Your task to perform on an android device: turn on location history Image 0: 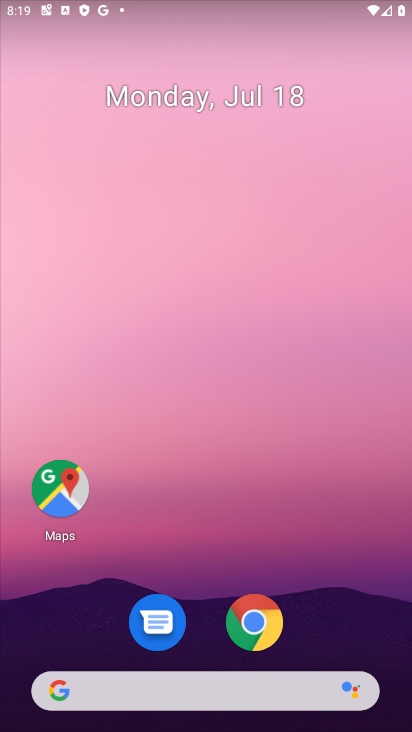
Step 0: drag from (205, 655) to (208, 196)
Your task to perform on an android device: turn on location history Image 1: 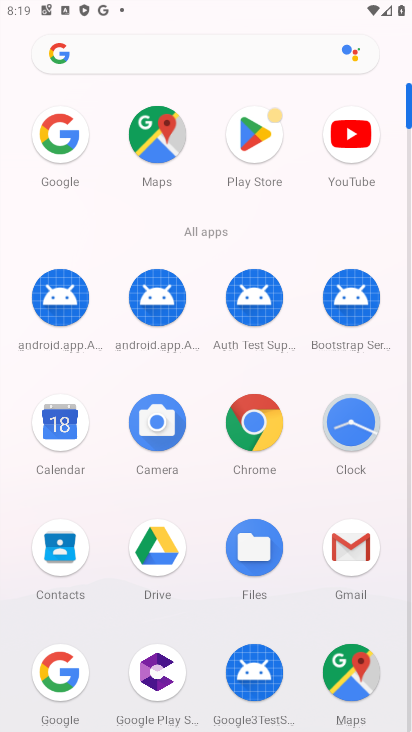
Step 1: drag from (279, 534) to (293, 274)
Your task to perform on an android device: turn on location history Image 2: 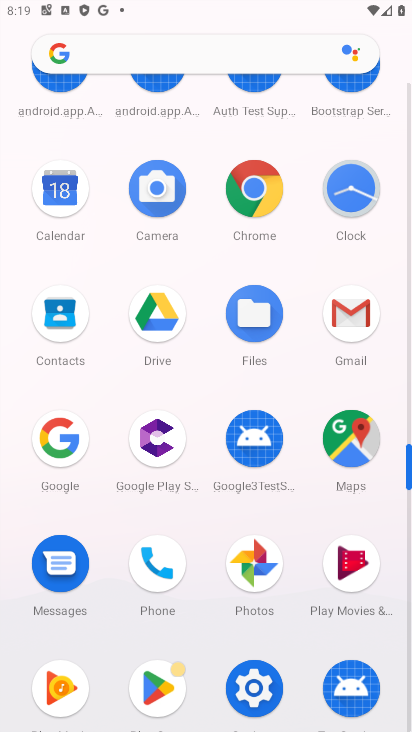
Step 2: click (257, 703)
Your task to perform on an android device: turn on location history Image 3: 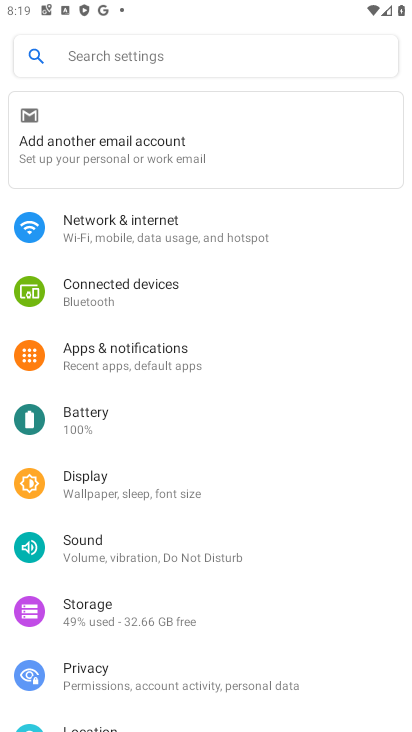
Step 3: drag from (150, 606) to (155, 296)
Your task to perform on an android device: turn on location history Image 4: 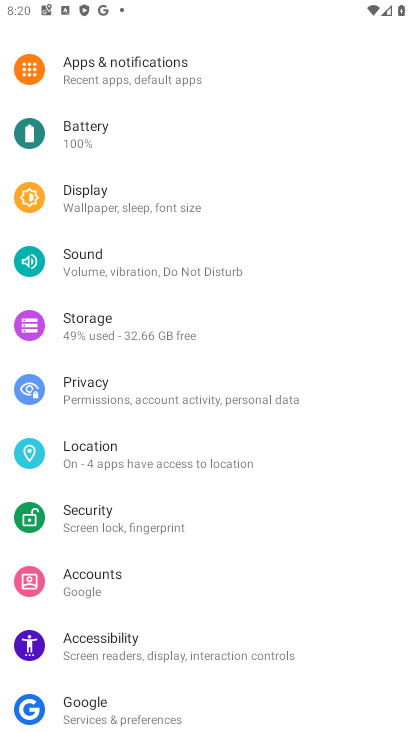
Step 4: click (201, 461)
Your task to perform on an android device: turn on location history Image 5: 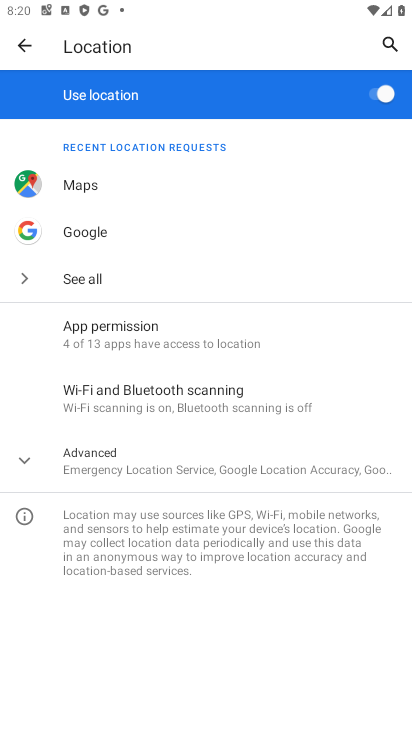
Step 5: click (97, 462)
Your task to perform on an android device: turn on location history Image 6: 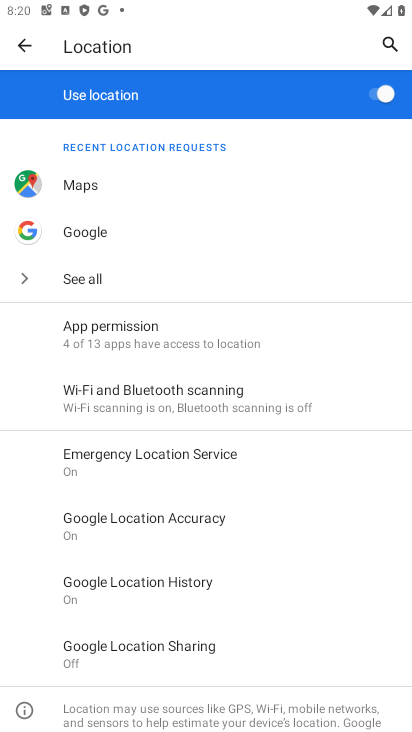
Step 6: click (176, 586)
Your task to perform on an android device: turn on location history Image 7: 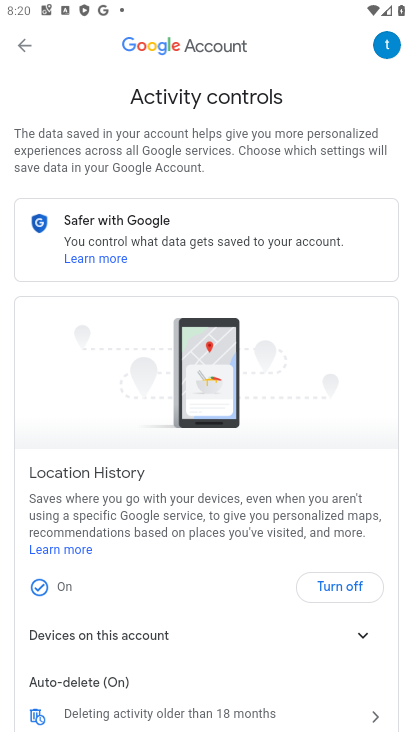
Step 7: task complete